Your task to perform on an android device: turn on showing notifications on the lock screen Image 0: 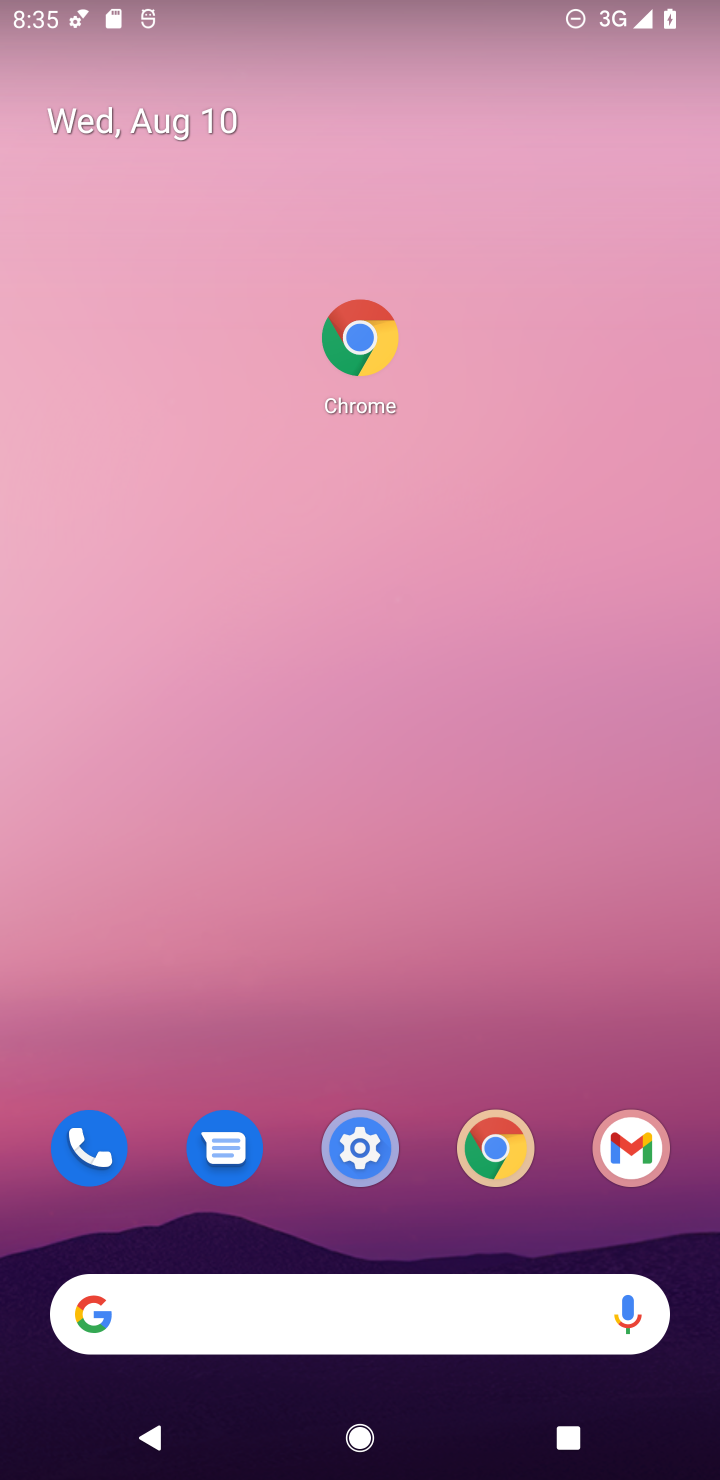
Step 0: click (377, 1145)
Your task to perform on an android device: turn on showing notifications on the lock screen Image 1: 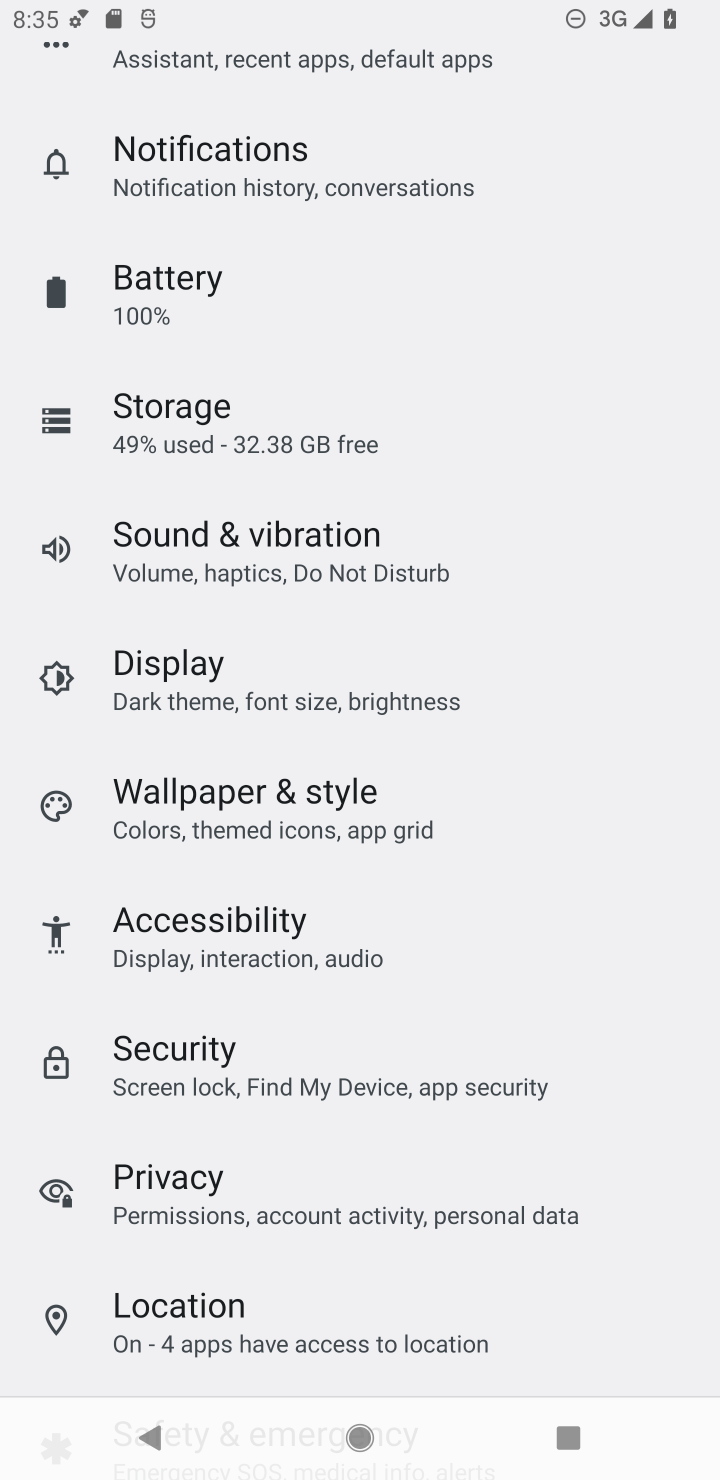
Step 1: click (257, 155)
Your task to perform on an android device: turn on showing notifications on the lock screen Image 2: 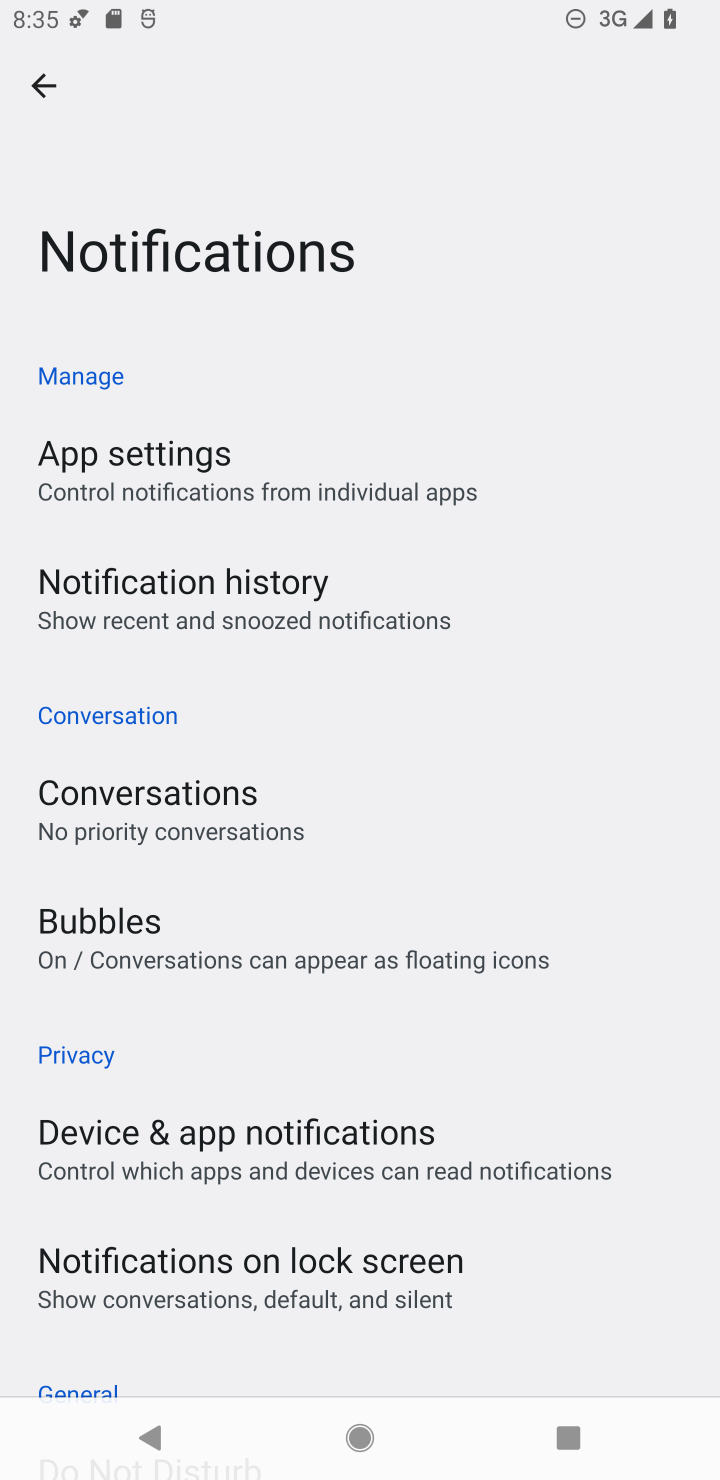
Step 2: click (321, 1260)
Your task to perform on an android device: turn on showing notifications on the lock screen Image 3: 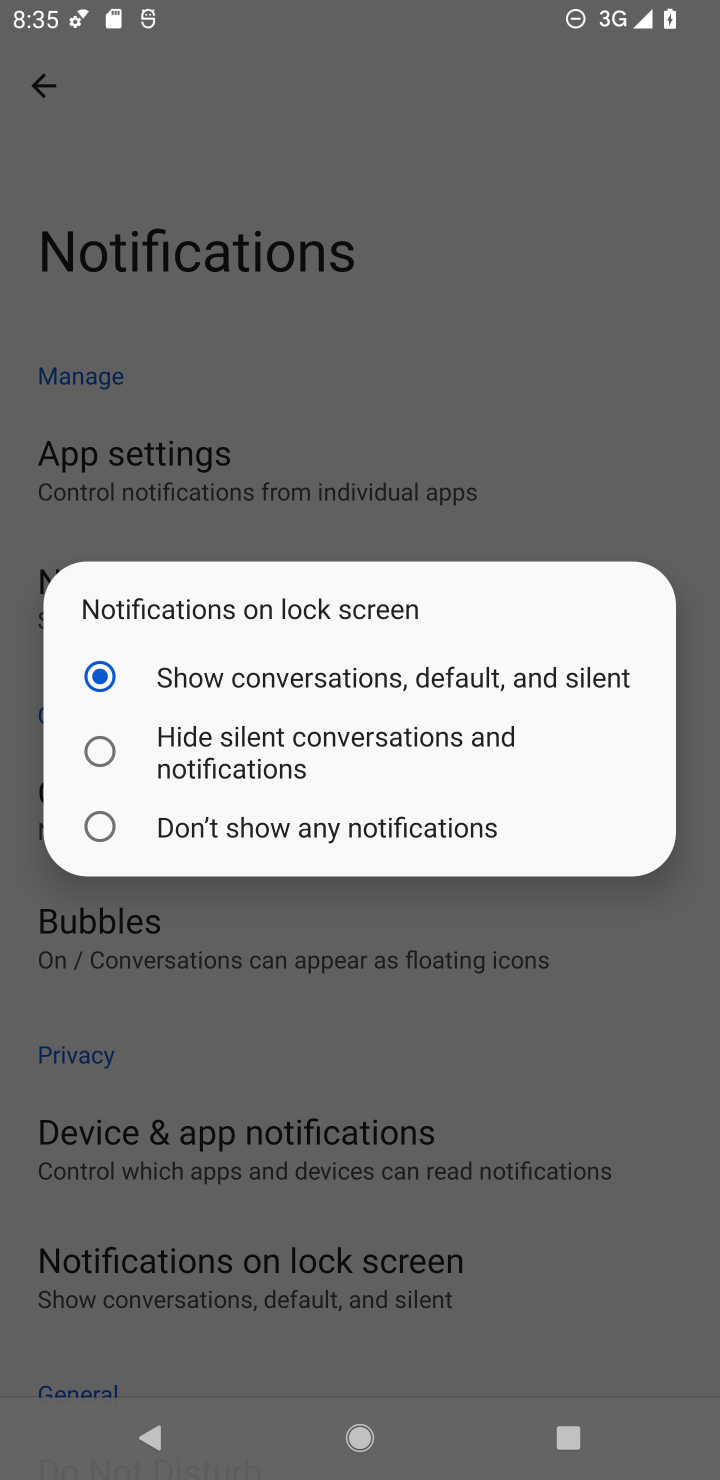
Step 3: click (106, 678)
Your task to perform on an android device: turn on showing notifications on the lock screen Image 4: 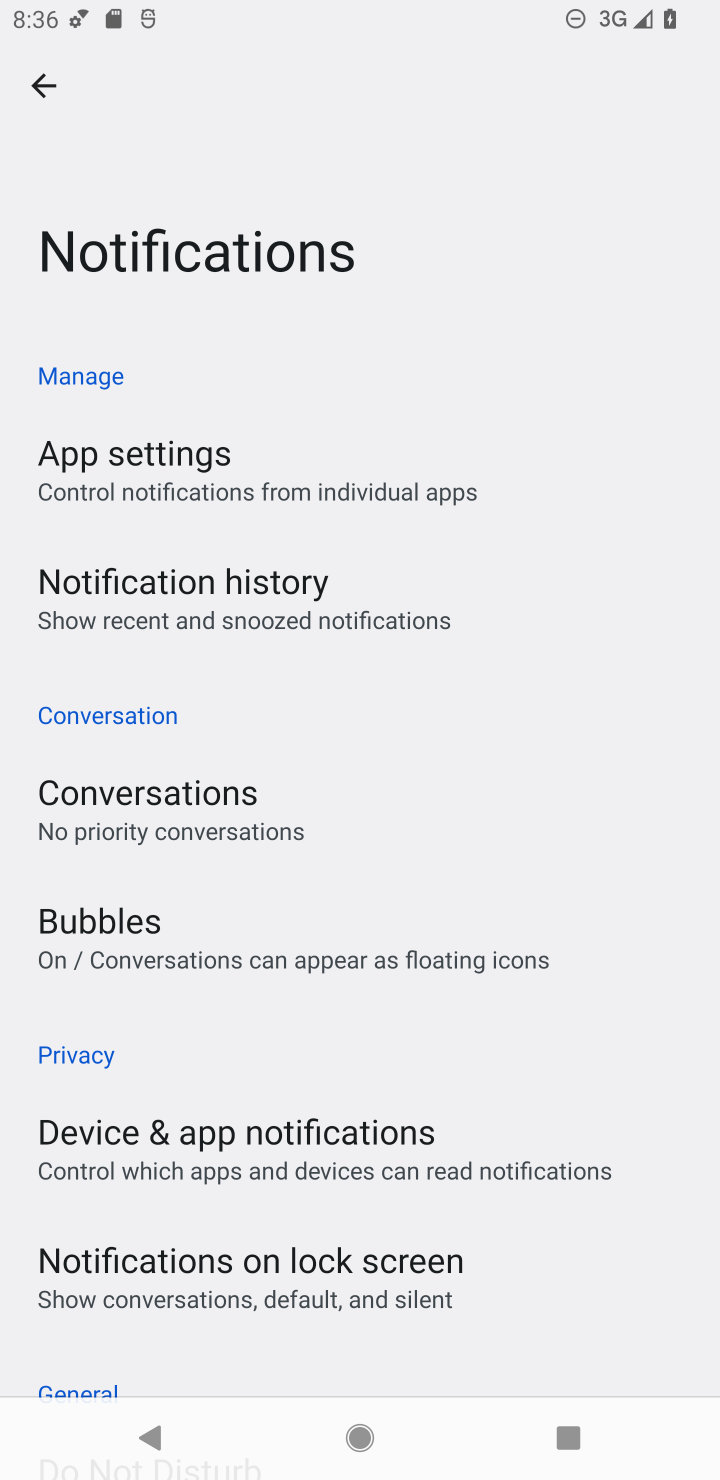
Step 4: task complete